Your task to perform on an android device: Open privacy settings Image 0: 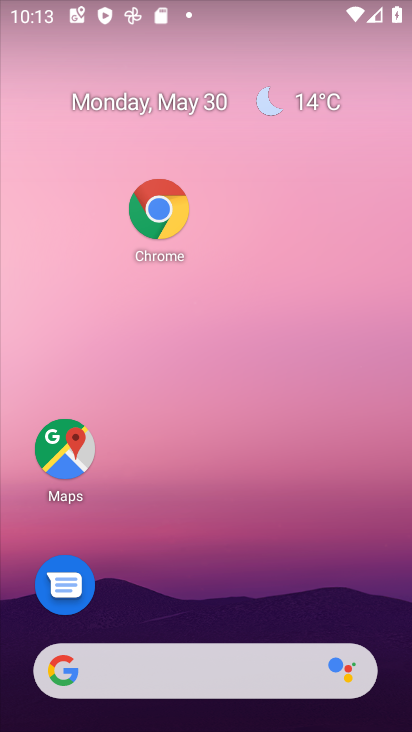
Step 0: drag from (219, 585) to (266, 70)
Your task to perform on an android device: Open privacy settings Image 1: 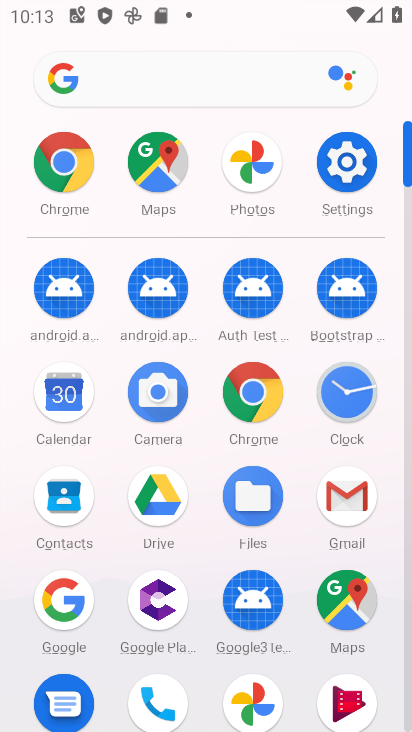
Step 1: click (343, 166)
Your task to perform on an android device: Open privacy settings Image 2: 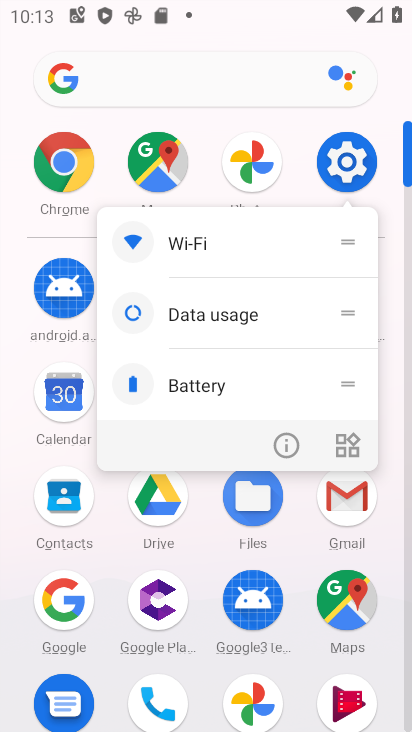
Step 2: click (295, 438)
Your task to perform on an android device: Open privacy settings Image 3: 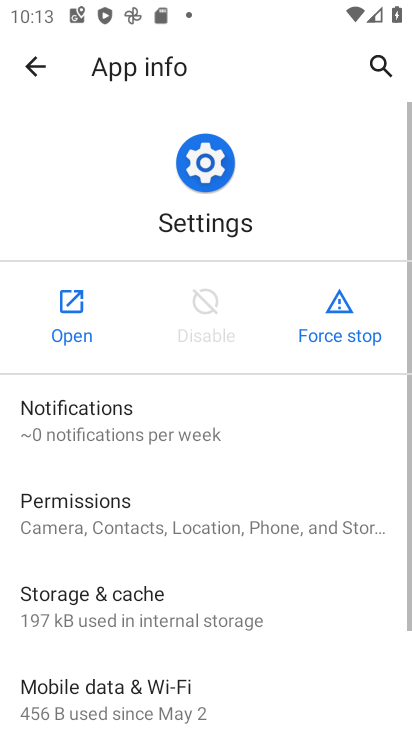
Step 3: click (70, 327)
Your task to perform on an android device: Open privacy settings Image 4: 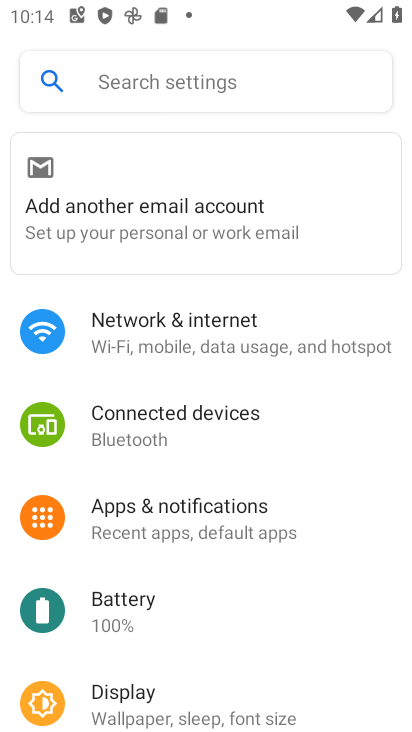
Step 4: drag from (184, 621) to (294, 25)
Your task to perform on an android device: Open privacy settings Image 5: 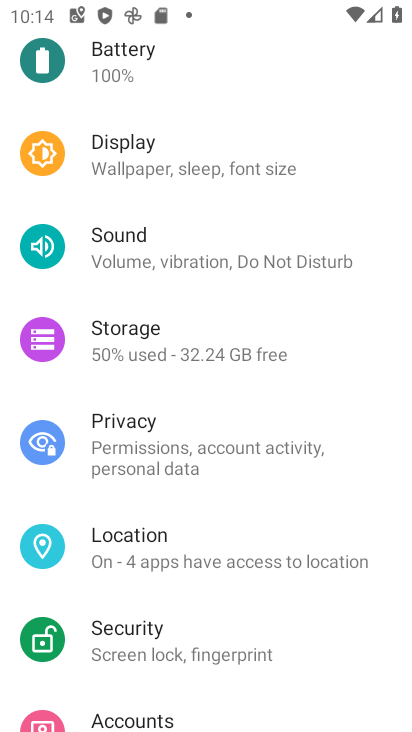
Step 5: click (130, 435)
Your task to perform on an android device: Open privacy settings Image 6: 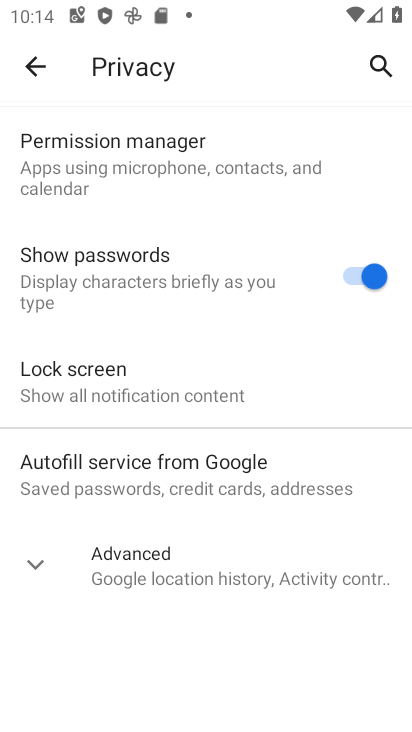
Step 6: task complete